Your task to perform on an android device: Show me popular videos on Youtube Image 0: 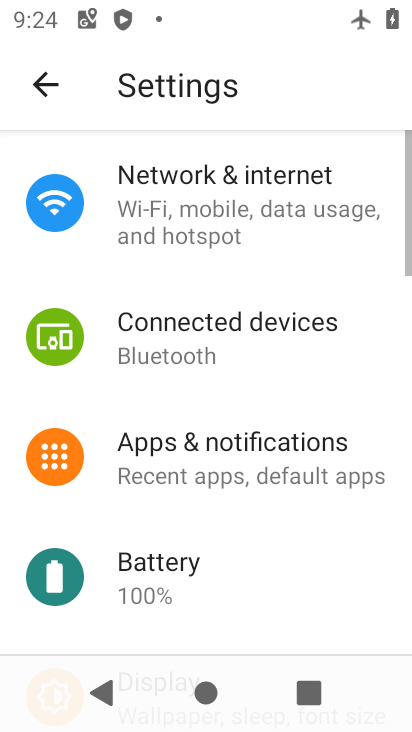
Step 0: press home button
Your task to perform on an android device: Show me popular videos on Youtube Image 1: 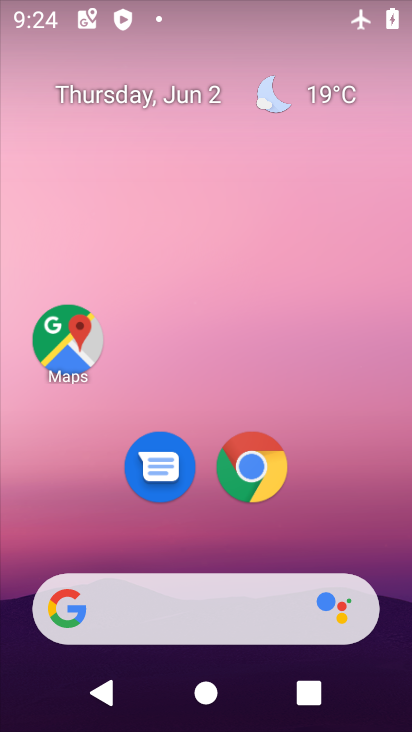
Step 1: click (193, 6)
Your task to perform on an android device: Show me popular videos on Youtube Image 2: 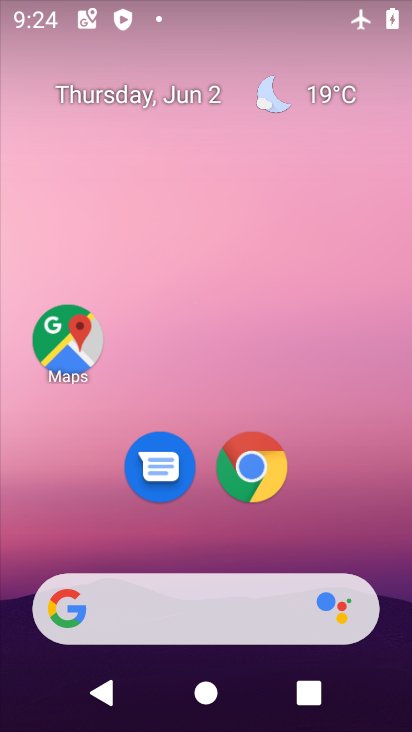
Step 2: click (187, 504)
Your task to perform on an android device: Show me popular videos on Youtube Image 3: 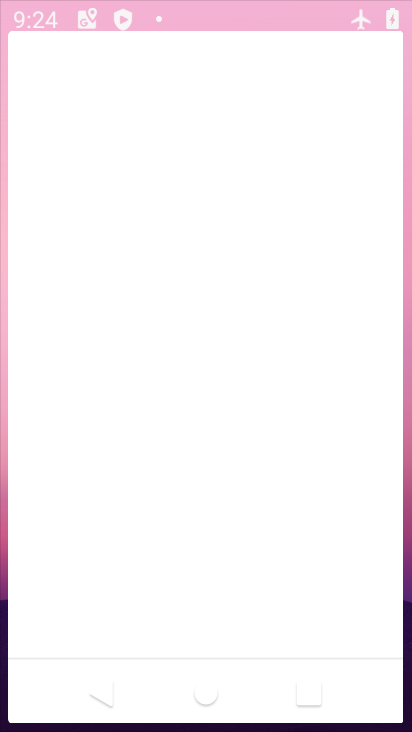
Step 3: drag from (187, 486) to (211, 145)
Your task to perform on an android device: Show me popular videos on Youtube Image 4: 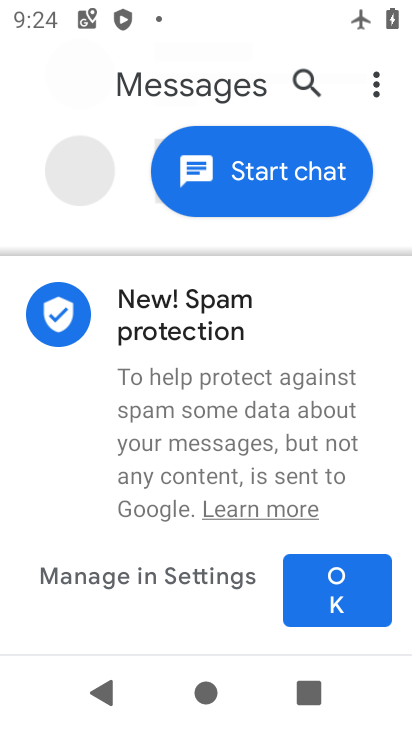
Step 4: press home button
Your task to perform on an android device: Show me popular videos on Youtube Image 5: 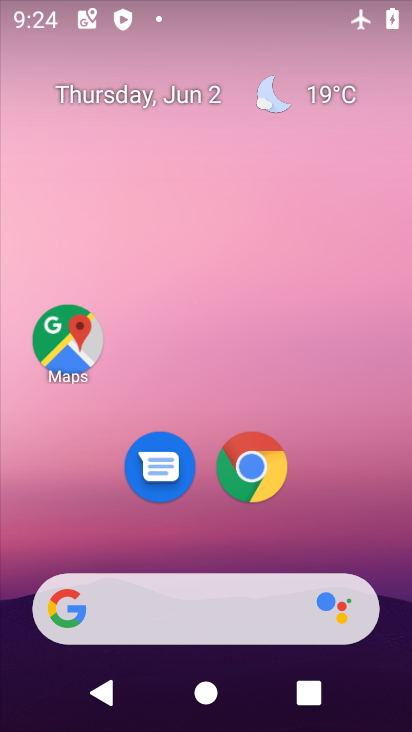
Step 5: drag from (177, 295) to (208, 154)
Your task to perform on an android device: Show me popular videos on Youtube Image 6: 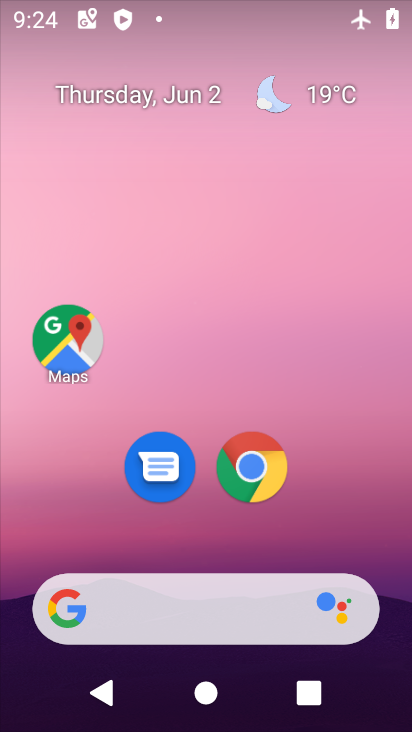
Step 6: drag from (212, 259) to (229, 125)
Your task to perform on an android device: Show me popular videos on Youtube Image 7: 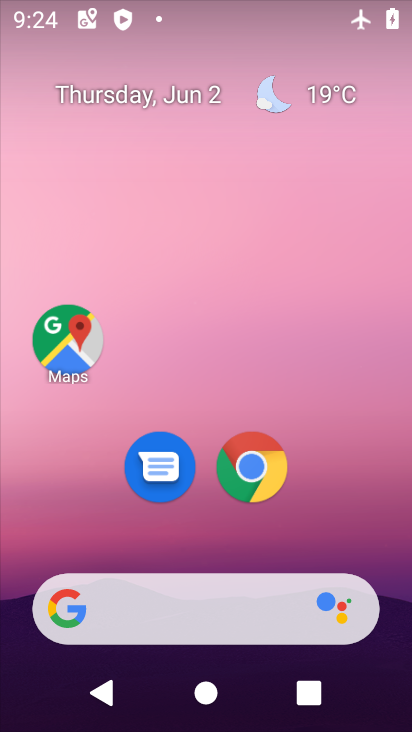
Step 7: drag from (184, 500) to (247, 133)
Your task to perform on an android device: Show me popular videos on Youtube Image 8: 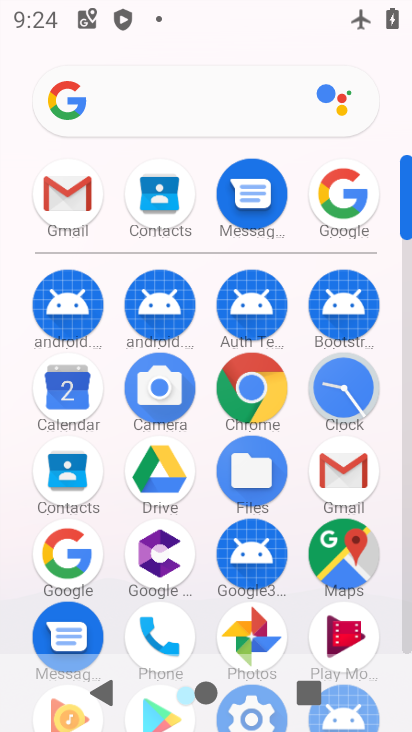
Step 8: drag from (312, 362) to (322, 323)
Your task to perform on an android device: Show me popular videos on Youtube Image 9: 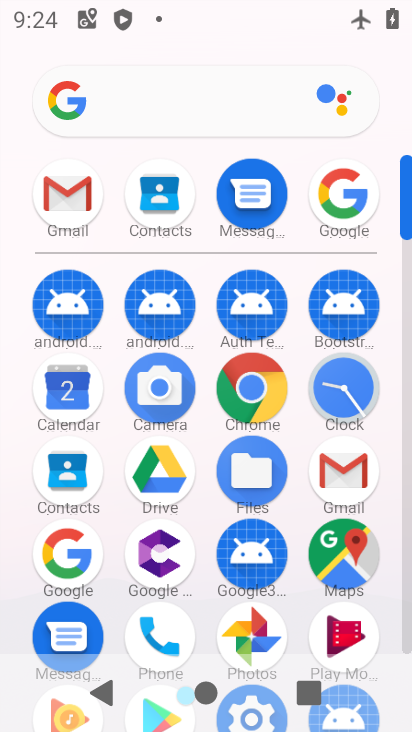
Step 9: drag from (200, 556) to (238, 274)
Your task to perform on an android device: Show me popular videos on Youtube Image 10: 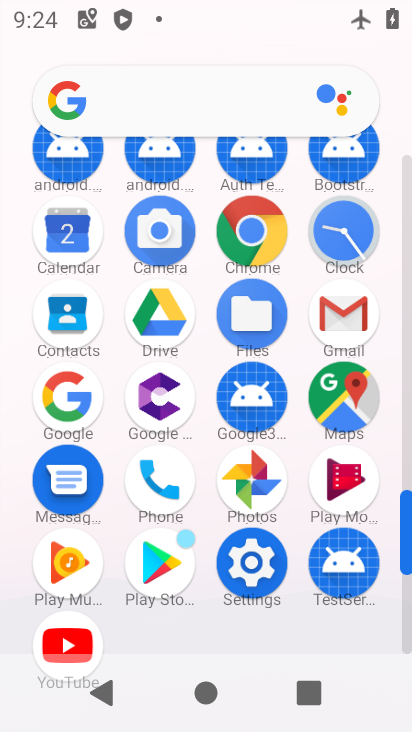
Step 10: click (63, 635)
Your task to perform on an android device: Show me popular videos on Youtube Image 11: 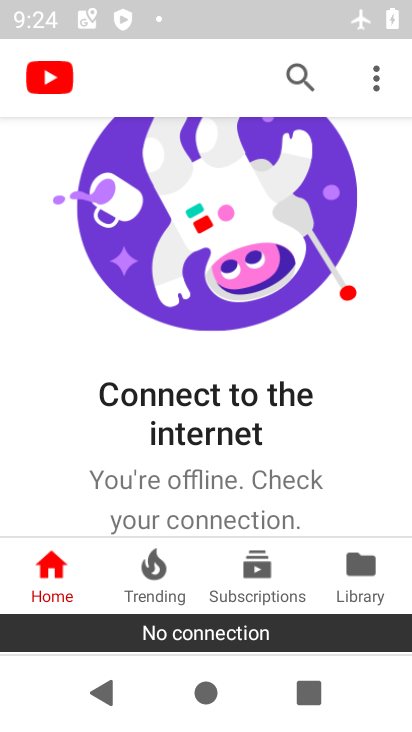
Step 11: click (355, 560)
Your task to perform on an android device: Show me popular videos on Youtube Image 12: 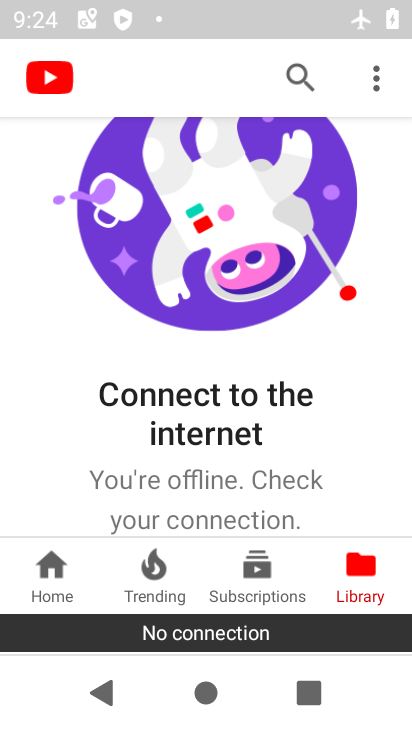
Step 12: task complete